Your task to perform on an android device: turn on bluetooth scan Image 0: 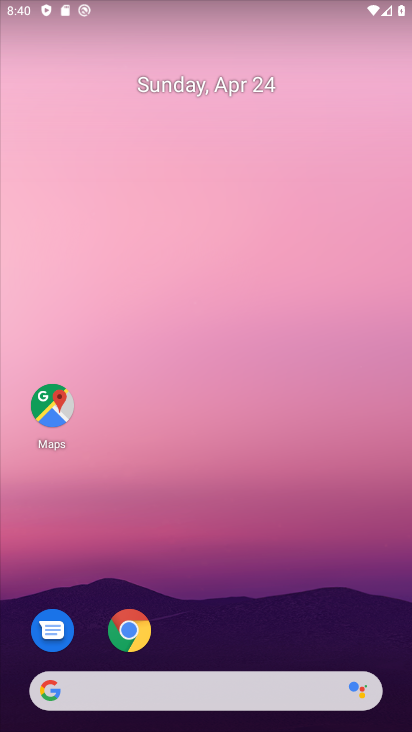
Step 0: drag from (238, 641) to (296, 294)
Your task to perform on an android device: turn on bluetooth scan Image 1: 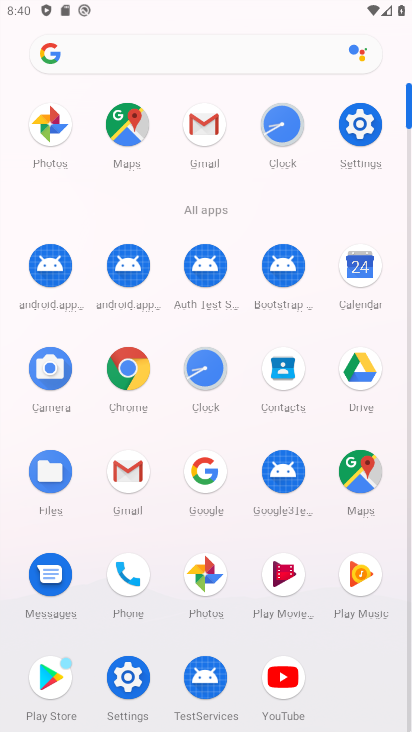
Step 1: click (370, 135)
Your task to perform on an android device: turn on bluetooth scan Image 2: 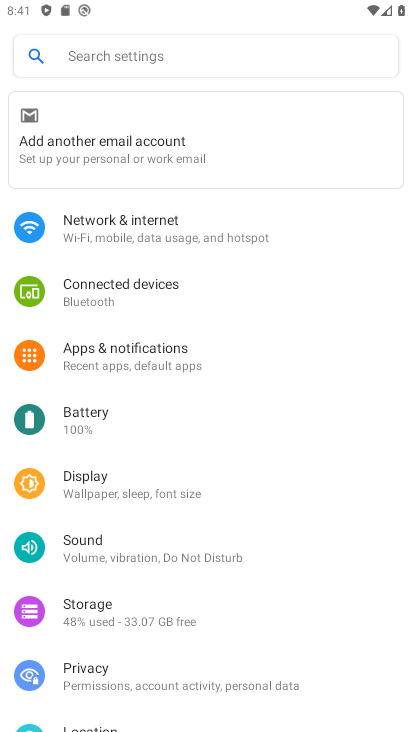
Step 2: drag from (149, 528) to (136, 277)
Your task to perform on an android device: turn on bluetooth scan Image 3: 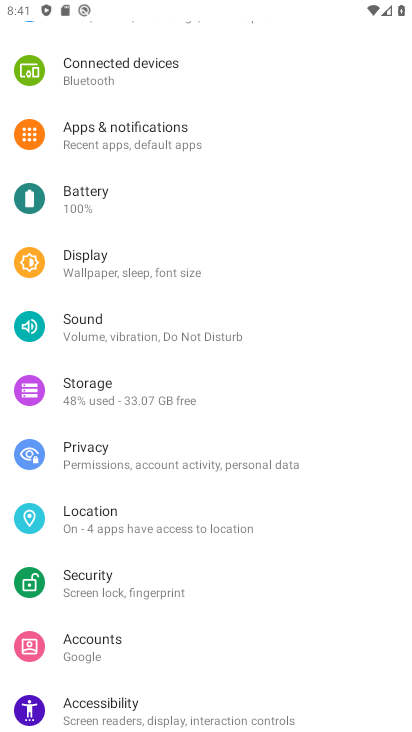
Step 3: click (180, 512)
Your task to perform on an android device: turn on bluetooth scan Image 4: 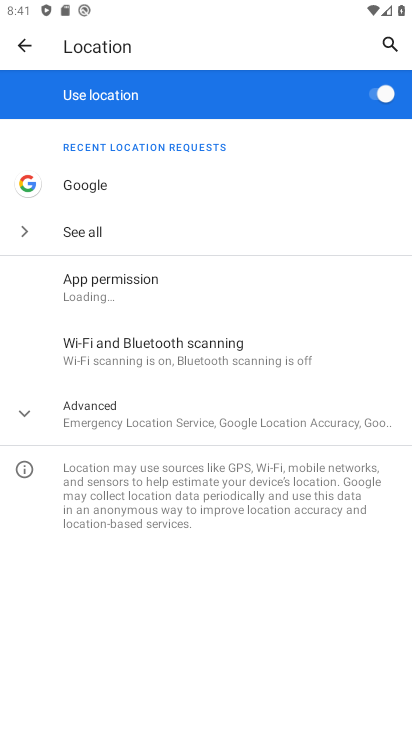
Step 4: click (176, 341)
Your task to perform on an android device: turn on bluetooth scan Image 5: 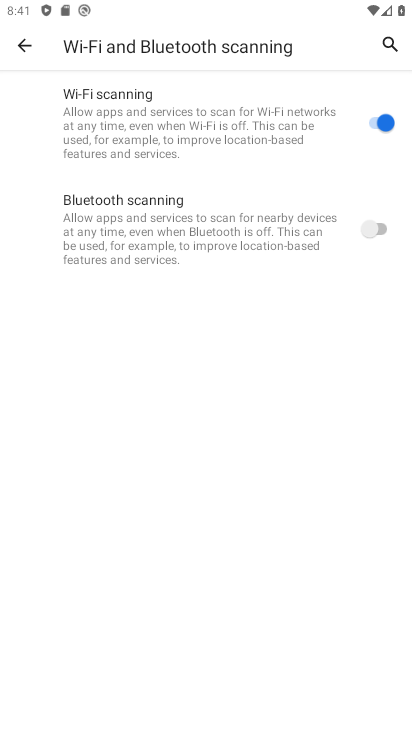
Step 5: click (378, 237)
Your task to perform on an android device: turn on bluetooth scan Image 6: 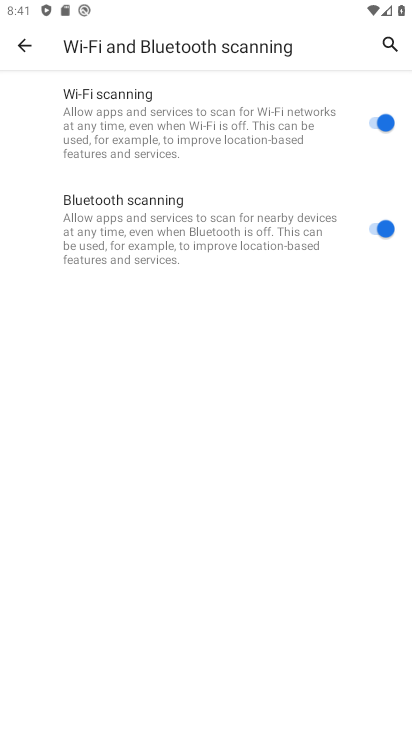
Step 6: task complete